Your task to perform on an android device: change timer sound Image 0: 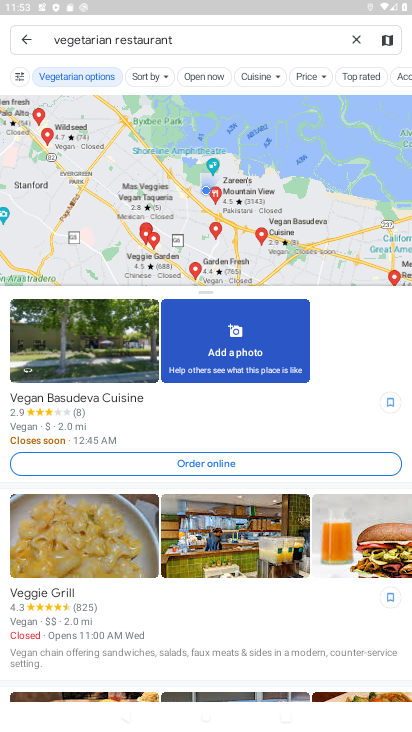
Step 0: press home button
Your task to perform on an android device: change timer sound Image 1: 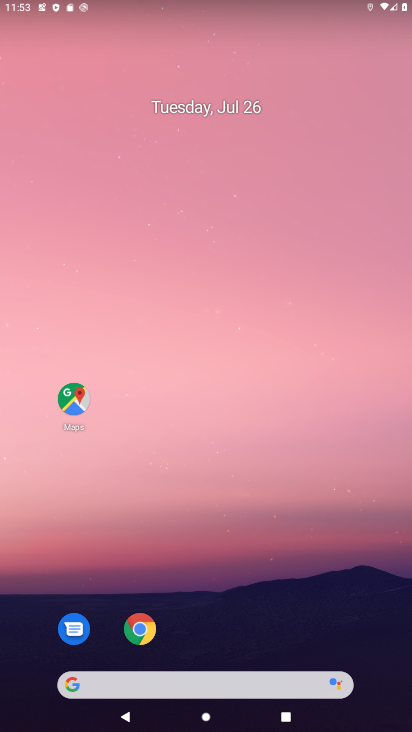
Step 1: drag from (231, 677) to (276, 105)
Your task to perform on an android device: change timer sound Image 2: 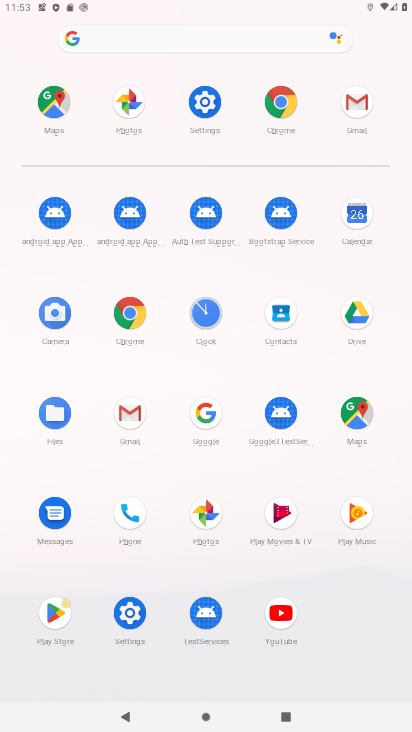
Step 2: click (201, 309)
Your task to perform on an android device: change timer sound Image 3: 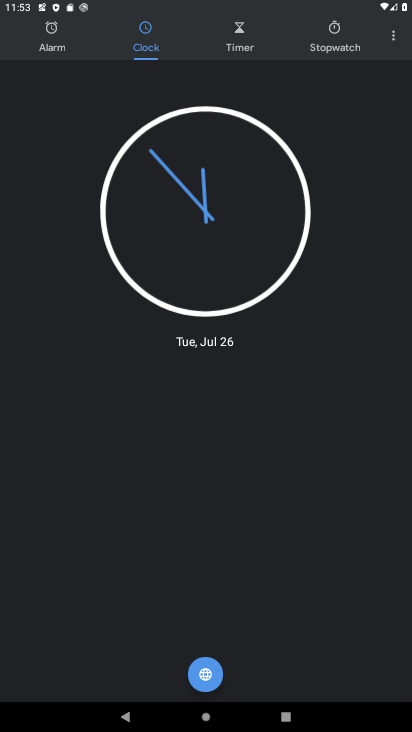
Step 3: click (396, 41)
Your task to perform on an android device: change timer sound Image 4: 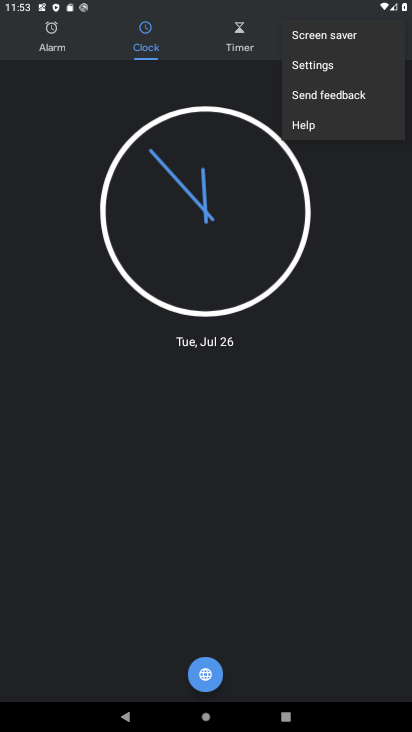
Step 4: click (318, 67)
Your task to perform on an android device: change timer sound Image 5: 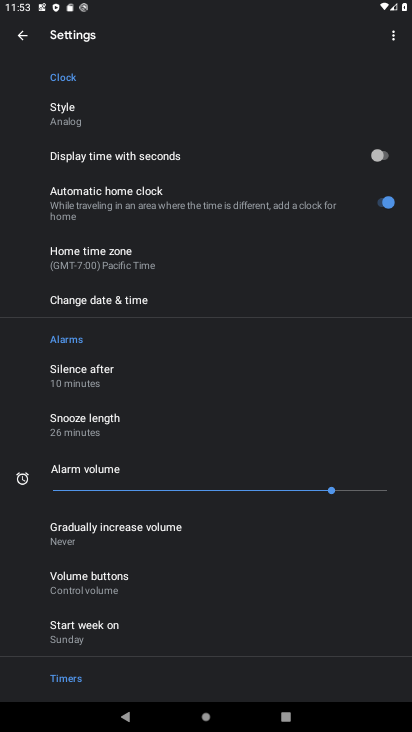
Step 5: drag from (180, 635) to (210, 389)
Your task to perform on an android device: change timer sound Image 6: 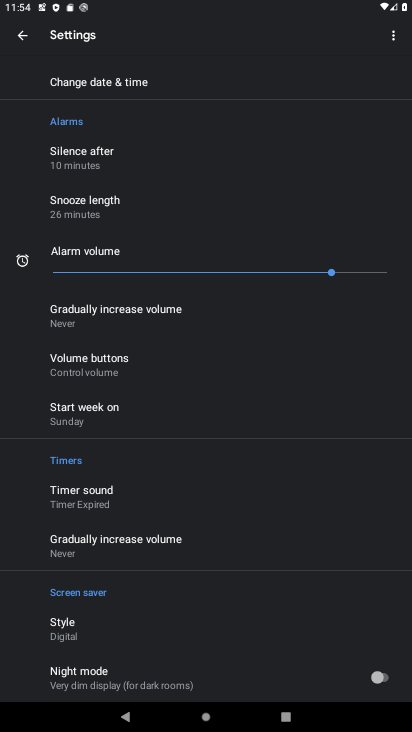
Step 6: click (92, 493)
Your task to perform on an android device: change timer sound Image 7: 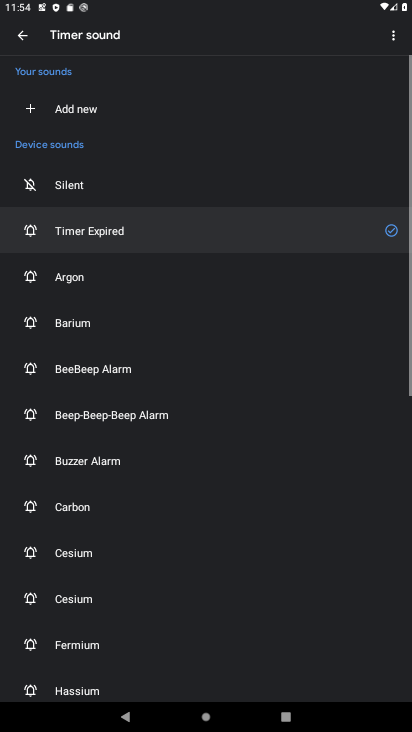
Step 7: click (85, 463)
Your task to perform on an android device: change timer sound Image 8: 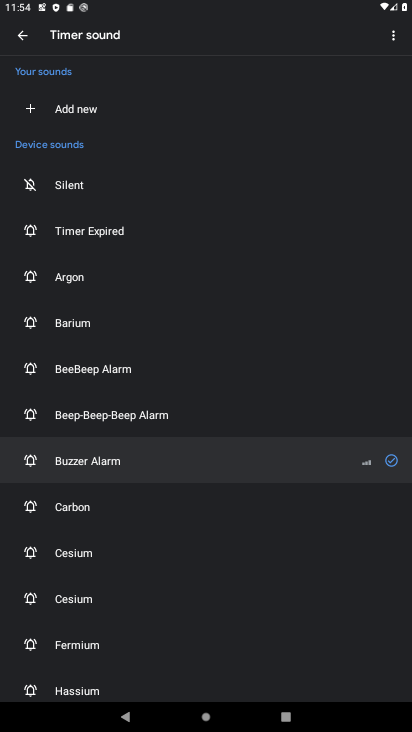
Step 8: task complete